Your task to perform on an android device: Open Chrome and go to the settings page Image 0: 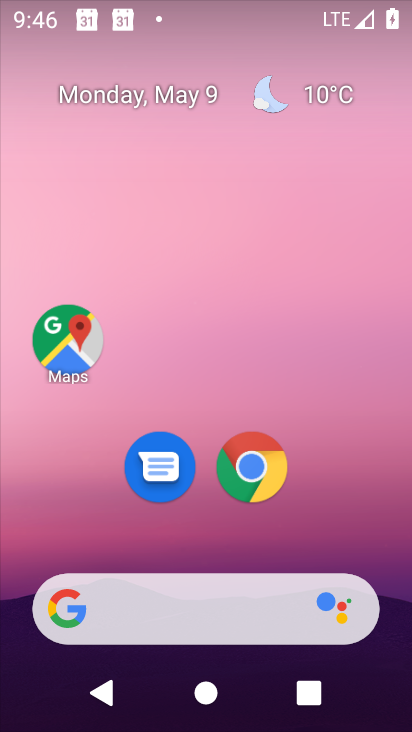
Step 0: click (260, 460)
Your task to perform on an android device: Open Chrome and go to the settings page Image 1: 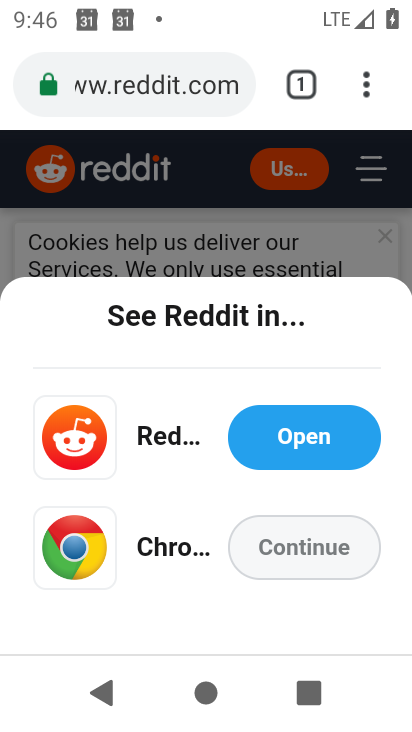
Step 1: click (364, 86)
Your task to perform on an android device: Open Chrome and go to the settings page Image 2: 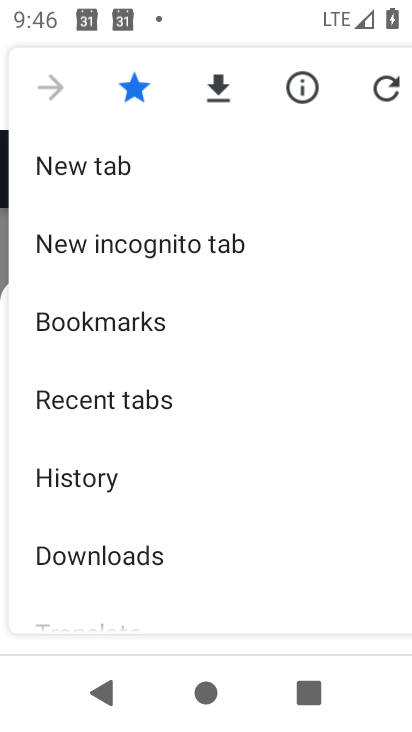
Step 2: drag from (237, 517) to (239, 102)
Your task to perform on an android device: Open Chrome and go to the settings page Image 3: 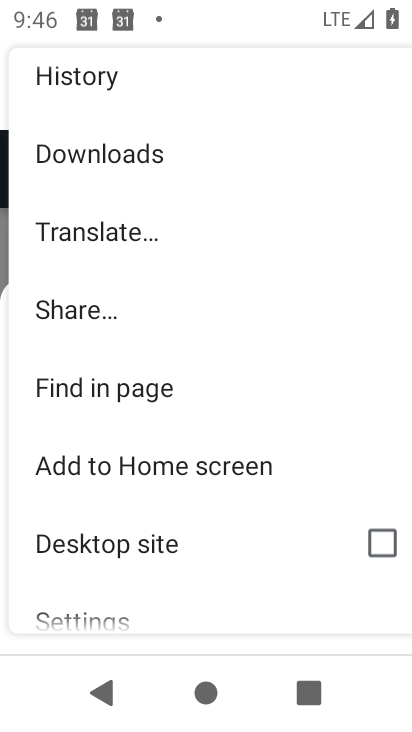
Step 3: drag from (228, 580) to (225, 318)
Your task to perform on an android device: Open Chrome and go to the settings page Image 4: 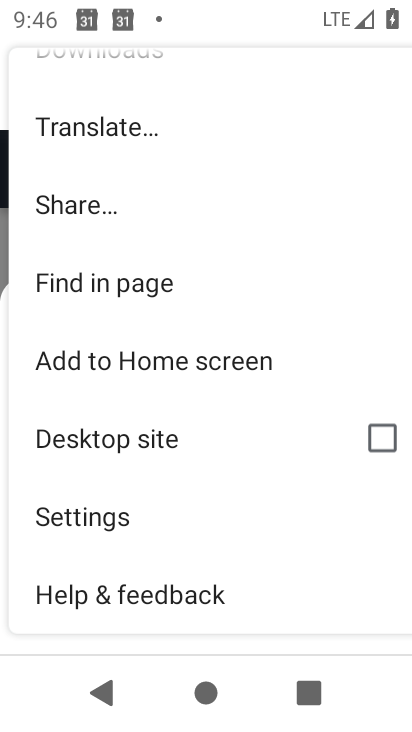
Step 4: click (117, 508)
Your task to perform on an android device: Open Chrome and go to the settings page Image 5: 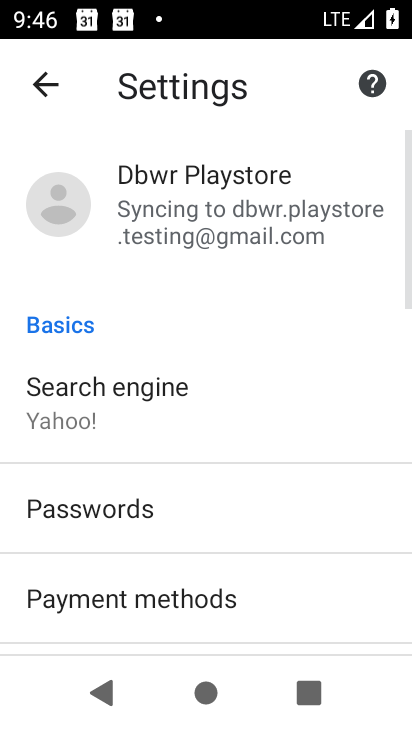
Step 5: task complete